Your task to perform on an android device: empty trash in the gmail app Image 0: 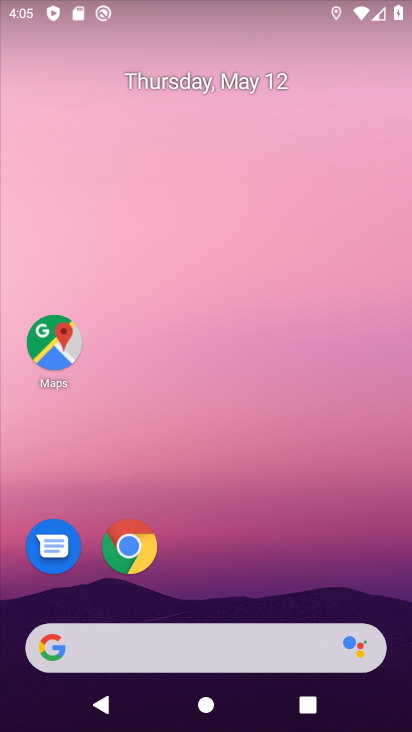
Step 0: drag from (224, 535) to (187, 88)
Your task to perform on an android device: empty trash in the gmail app Image 1: 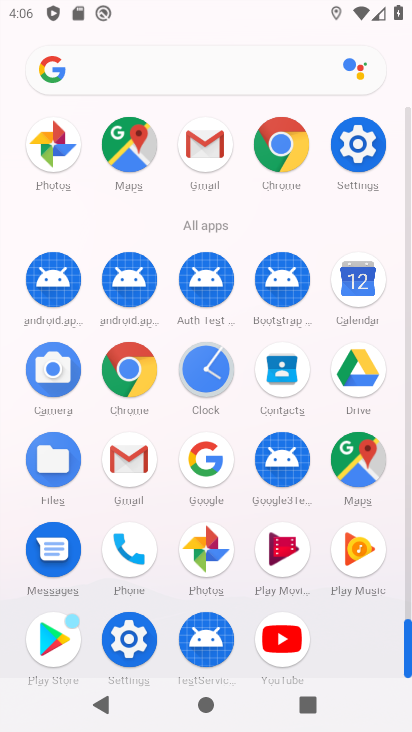
Step 1: click (129, 451)
Your task to perform on an android device: empty trash in the gmail app Image 2: 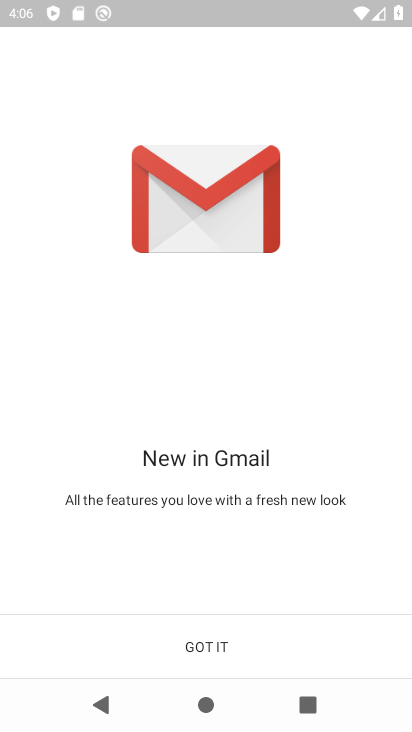
Step 2: click (169, 642)
Your task to perform on an android device: empty trash in the gmail app Image 3: 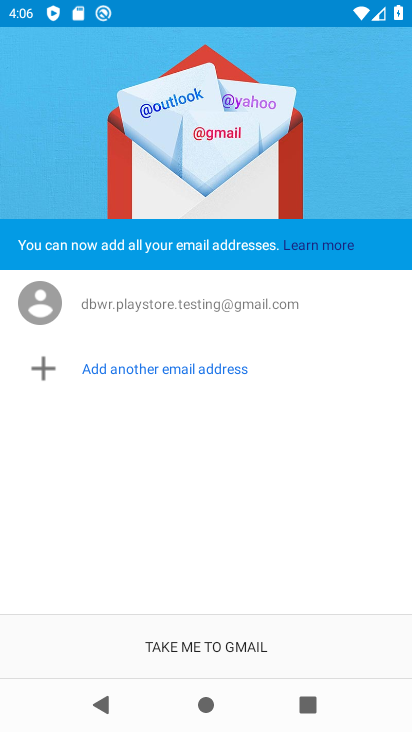
Step 3: click (202, 658)
Your task to perform on an android device: empty trash in the gmail app Image 4: 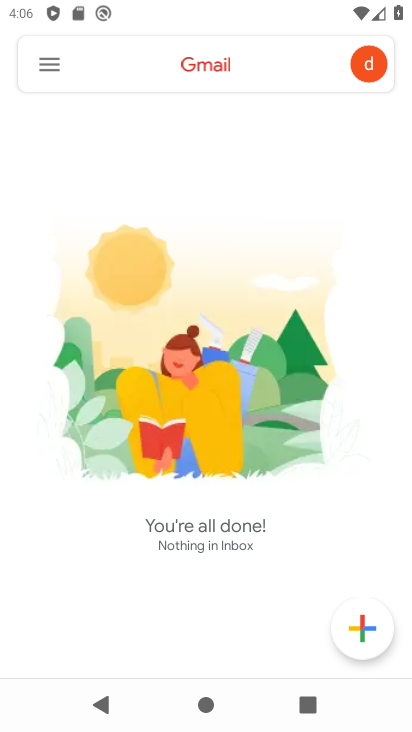
Step 4: click (47, 68)
Your task to perform on an android device: empty trash in the gmail app Image 5: 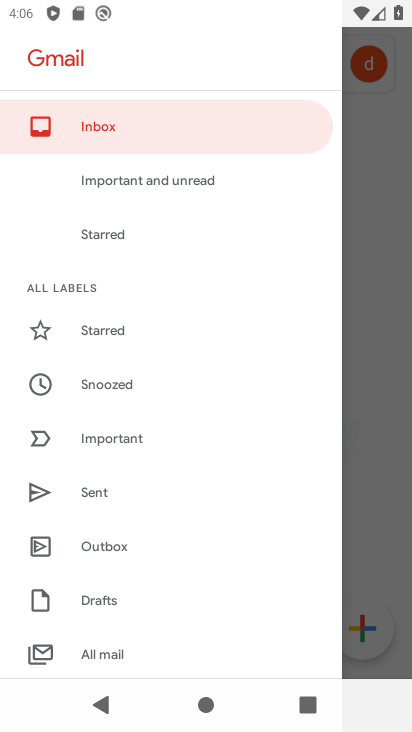
Step 5: drag from (189, 570) to (245, 130)
Your task to perform on an android device: empty trash in the gmail app Image 6: 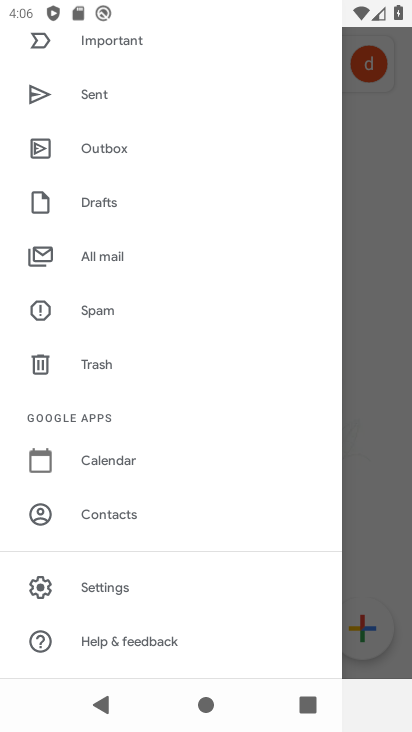
Step 6: drag from (186, 587) to (201, 189)
Your task to perform on an android device: empty trash in the gmail app Image 7: 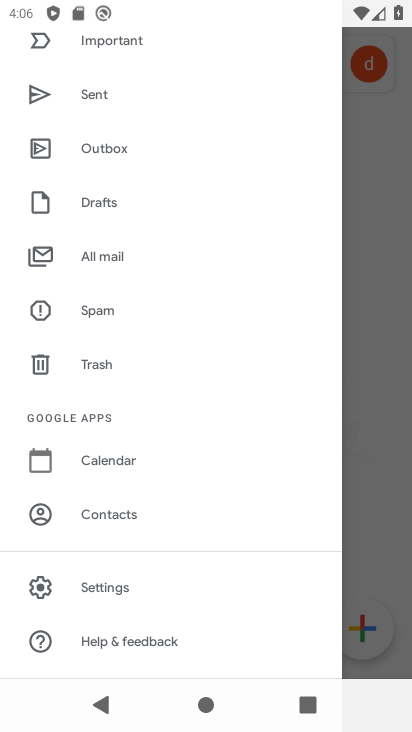
Step 7: click (114, 585)
Your task to perform on an android device: empty trash in the gmail app Image 8: 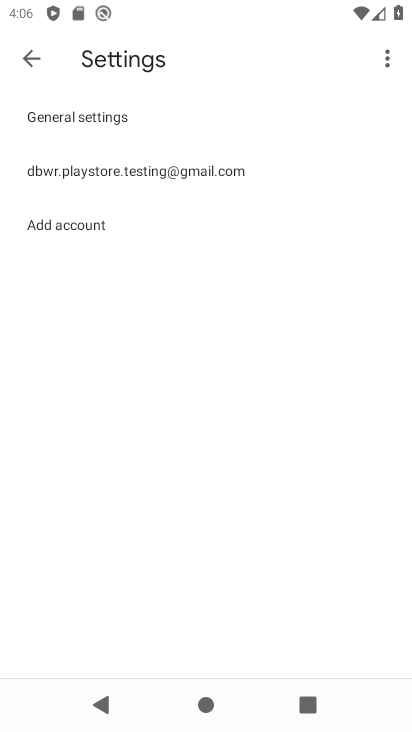
Step 8: click (144, 178)
Your task to perform on an android device: empty trash in the gmail app Image 9: 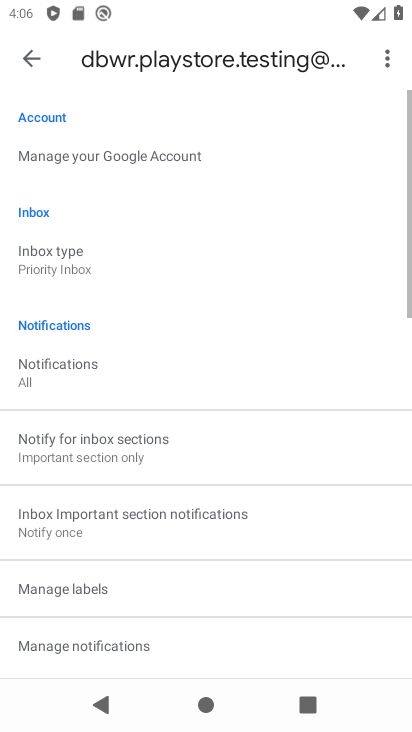
Step 9: drag from (173, 582) to (208, 162)
Your task to perform on an android device: empty trash in the gmail app Image 10: 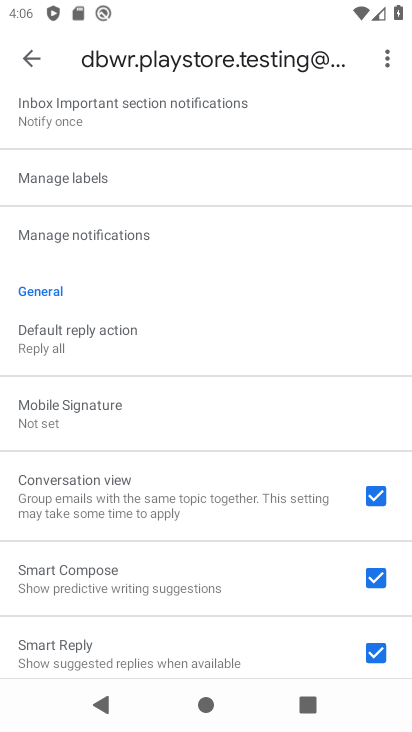
Step 10: drag from (195, 609) to (272, 187)
Your task to perform on an android device: empty trash in the gmail app Image 11: 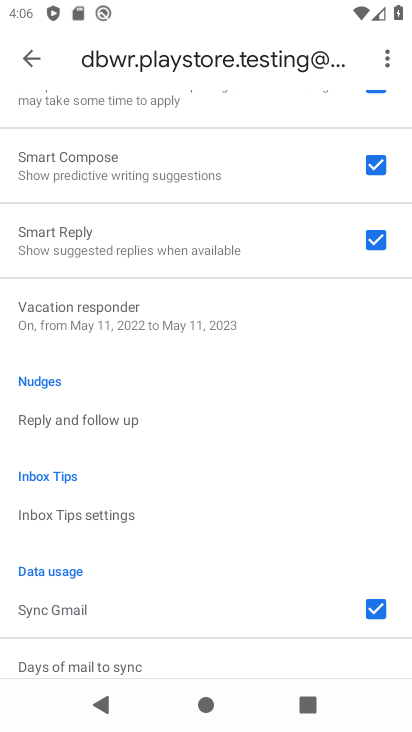
Step 11: drag from (232, 540) to (218, 144)
Your task to perform on an android device: empty trash in the gmail app Image 12: 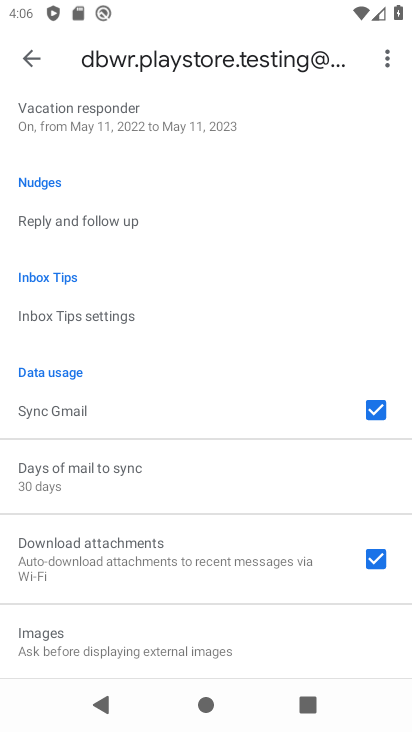
Step 12: drag from (161, 484) to (189, 211)
Your task to perform on an android device: empty trash in the gmail app Image 13: 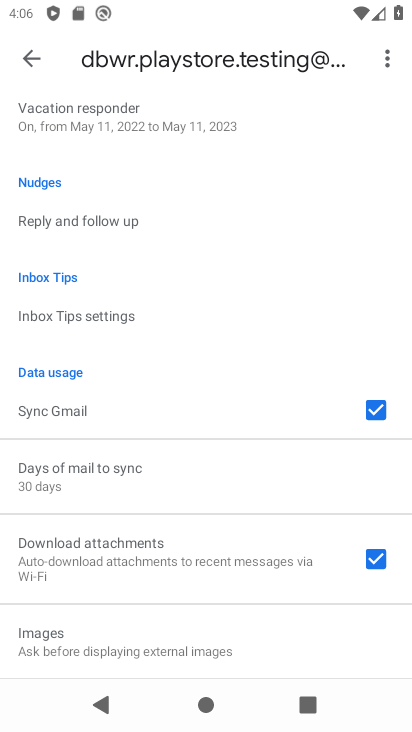
Step 13: drag from (186, 217) to (181, 613)
Your task to perform on an android device: empty trash in the gmail app Image 14: 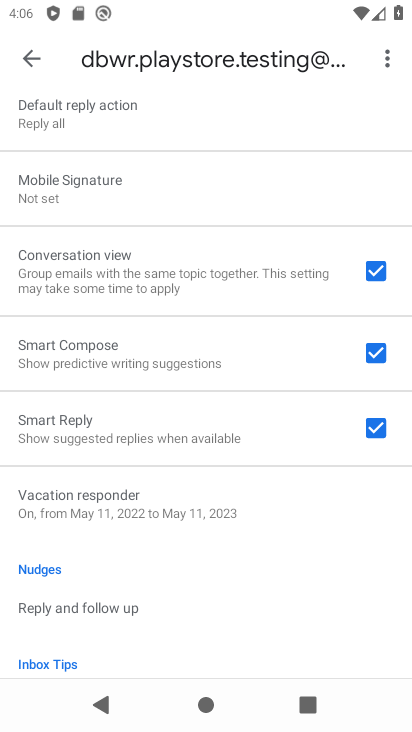
Step 14: drag from (182, 141) to (177, 387)
Your task to perform on an android device: empty trash in the gmail app Image 15: 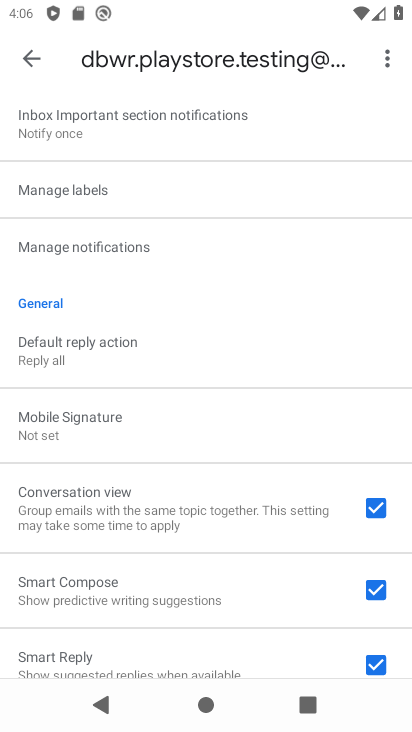
Step 15: drag from (208, 184) to (157, 555)
Your task to perform on an android device: empty trash in the gmail app Image 16: 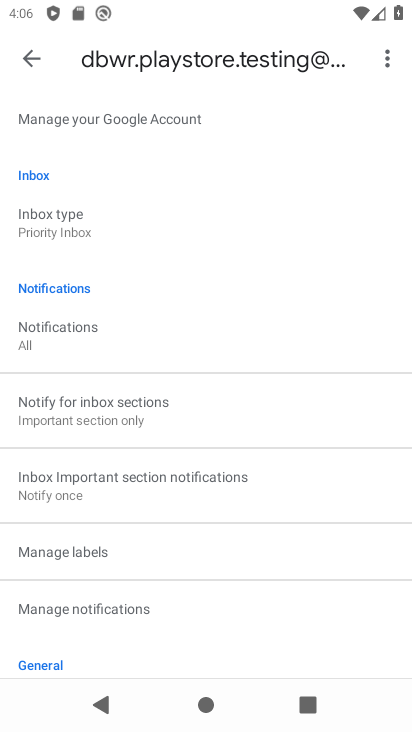
Step 16: drag from (185, 334) to (177, 431)
Your task to perform on an android device: empty trash in the gmail app Image 17: 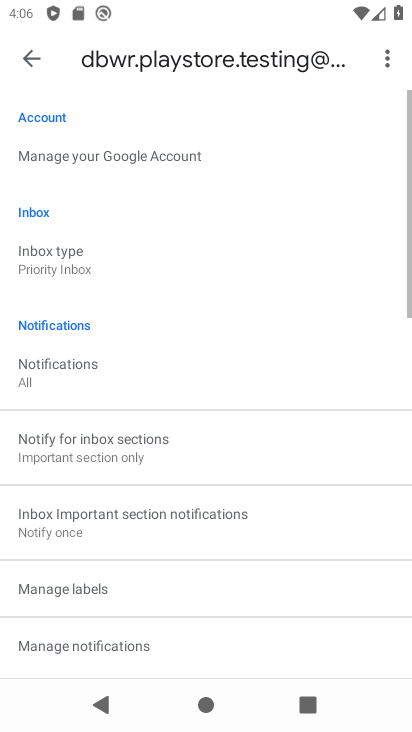
Step 17: click (35, 51)
Your task to perform on an android device: empty trash in the gmail app Image 18: 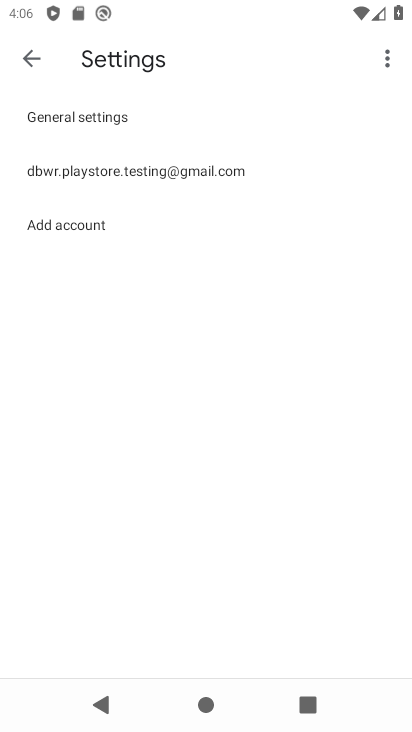
Step 18: click (35, 51)
Your task to perform on an android device: empty trash in the gmail app Image 19: 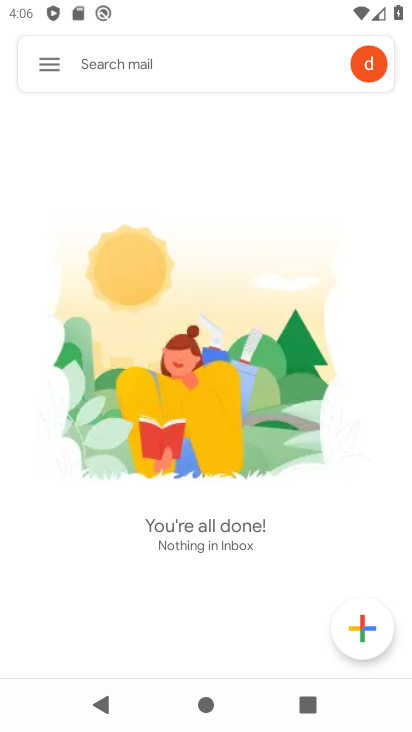
Step 19: click (49, 66)
Your task to perform on an android device: empty trash in the gmail app Image 20: 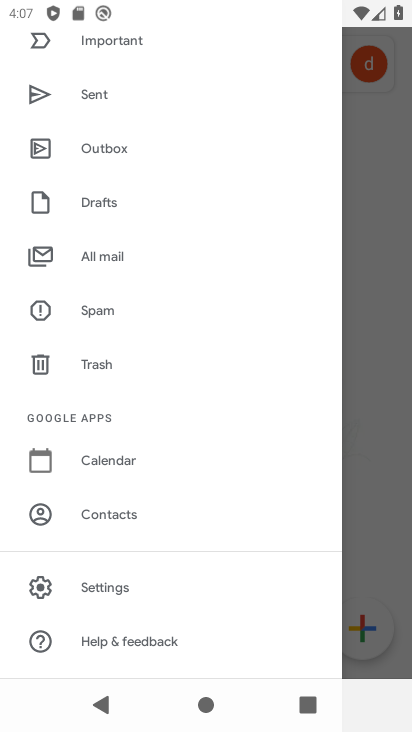
Step 20: click (93, 356)
Your task to perform on an android device: empty trash in the gmail app Image 21: 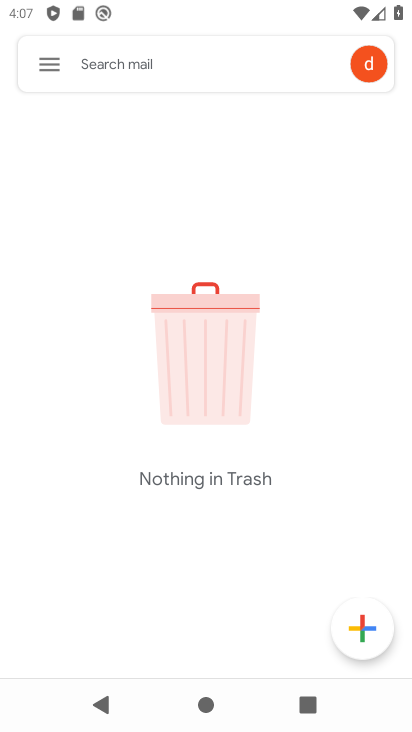
Step 21: task complete